Your task to perform on an android device: toggle notifications settings in the gmail app Image 0: 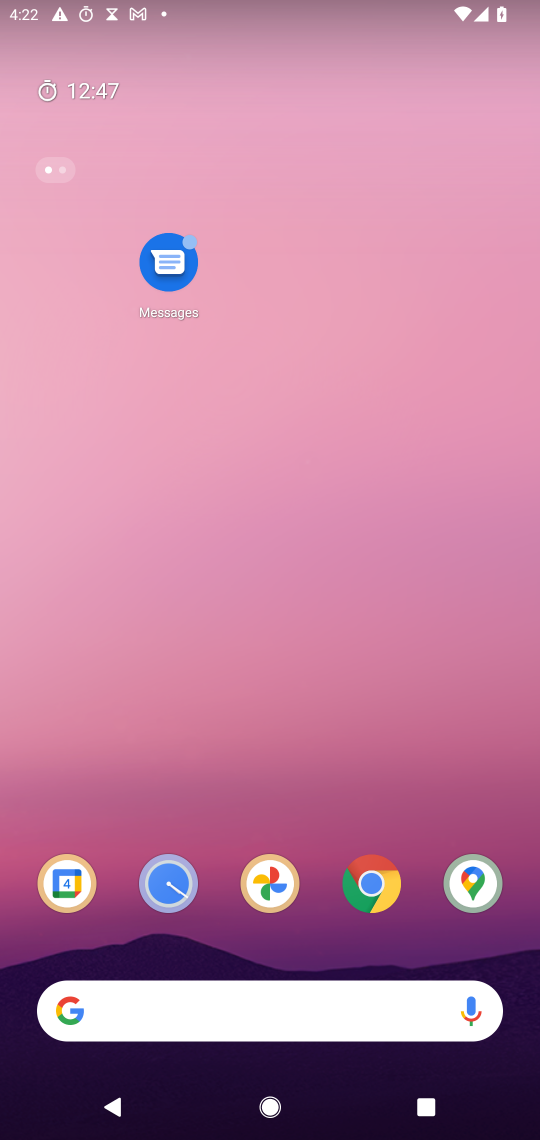
Step 0: drag from (316, 967) to (294, 114)
Your task to perform on an android device: toggle notifications settings in the gmail app Image 1: 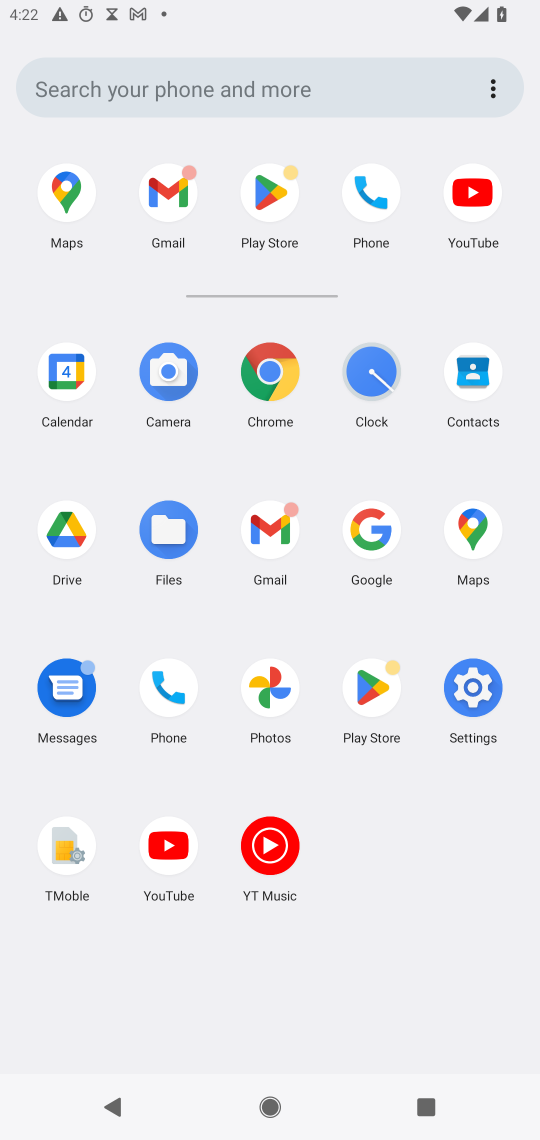
Step 1: click (265, 527)
Your task to perform on an android device: toggle notifications settings in the gmail app Image 2: 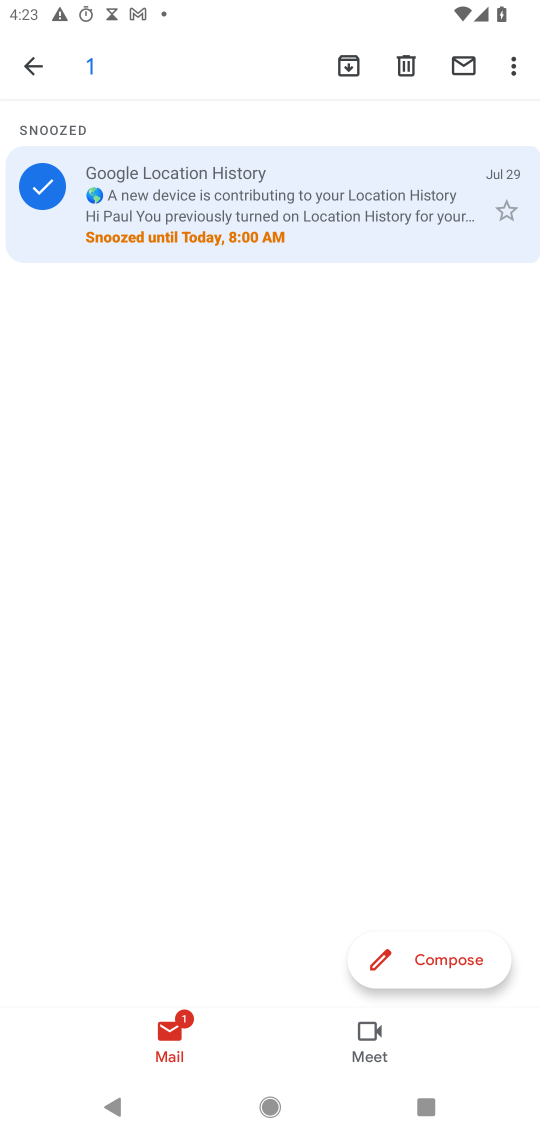
Step 2: click (337, 768)
Your task to perform on an android device: toggle notifications settings in the gmail app Image 3: 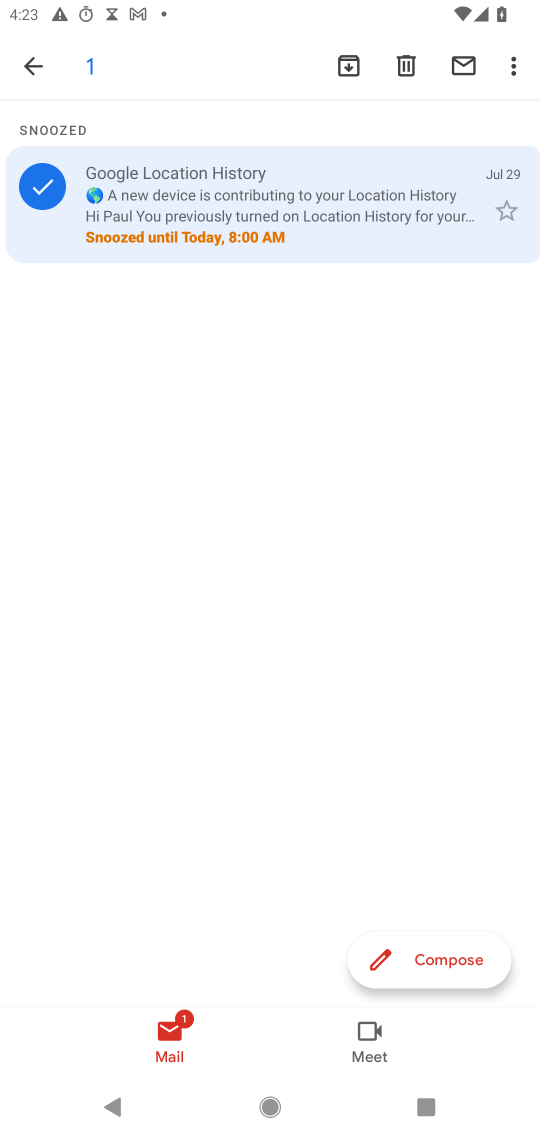
Step 3: click (45, 64)
Your task to perform on an android device: toggle notifications settings in the gmail app Image 4: 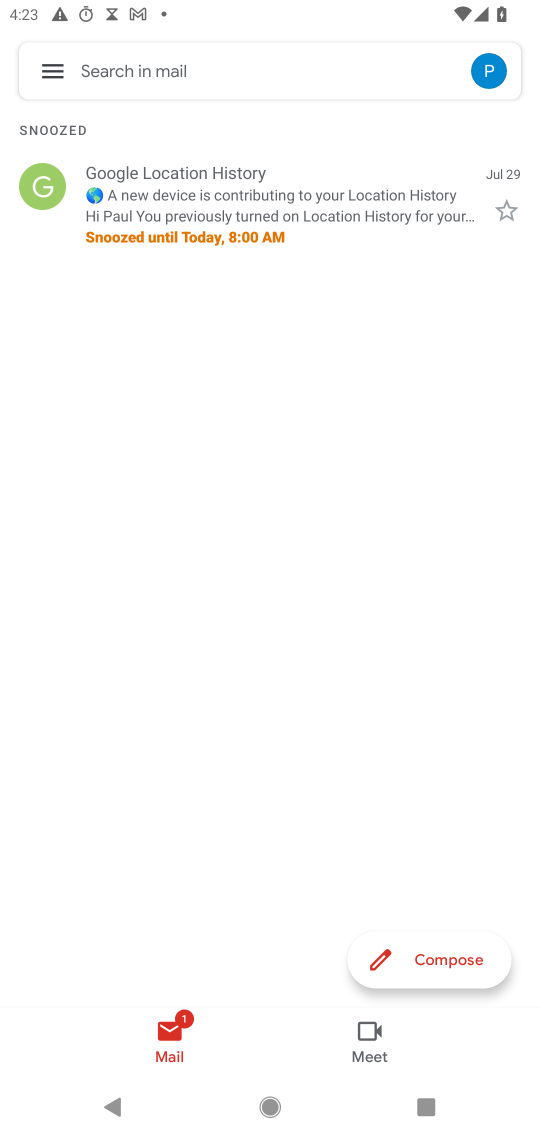
Step 4: click (51, 62)
Your task to perform on an android device: toggle notifications settings in the gmail app Image 5: 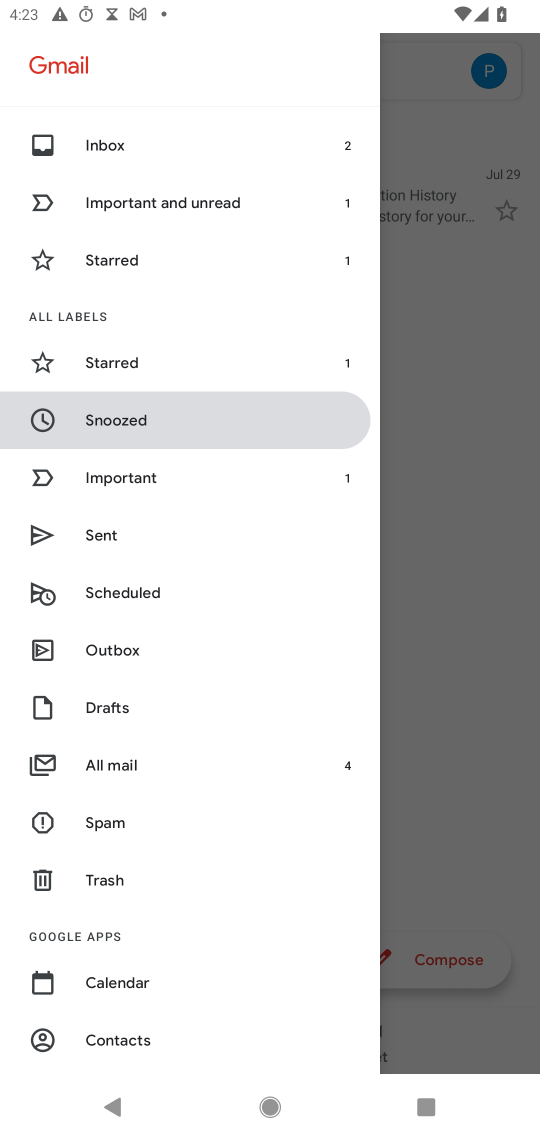
Step 5: drag from (127, 1000) to (108, 640)
Your task to perform on an android device: toggle notifications settings in the gmail app Image 6: 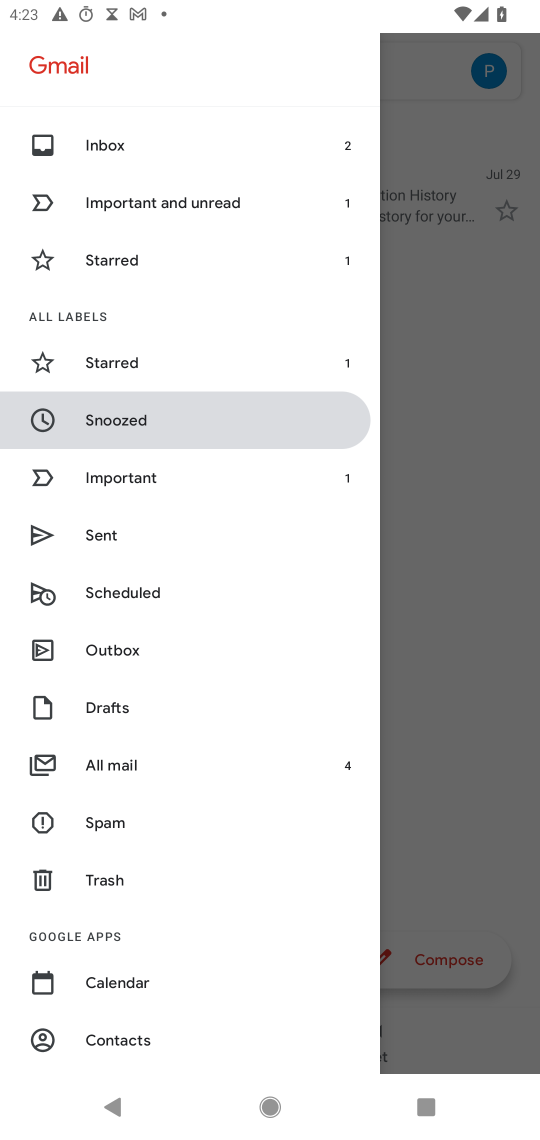
Step 6: drag from (125, 974) to (144, 645)
Your task to perform on an android device: toggle notifications settings in the gmail app Image 7: 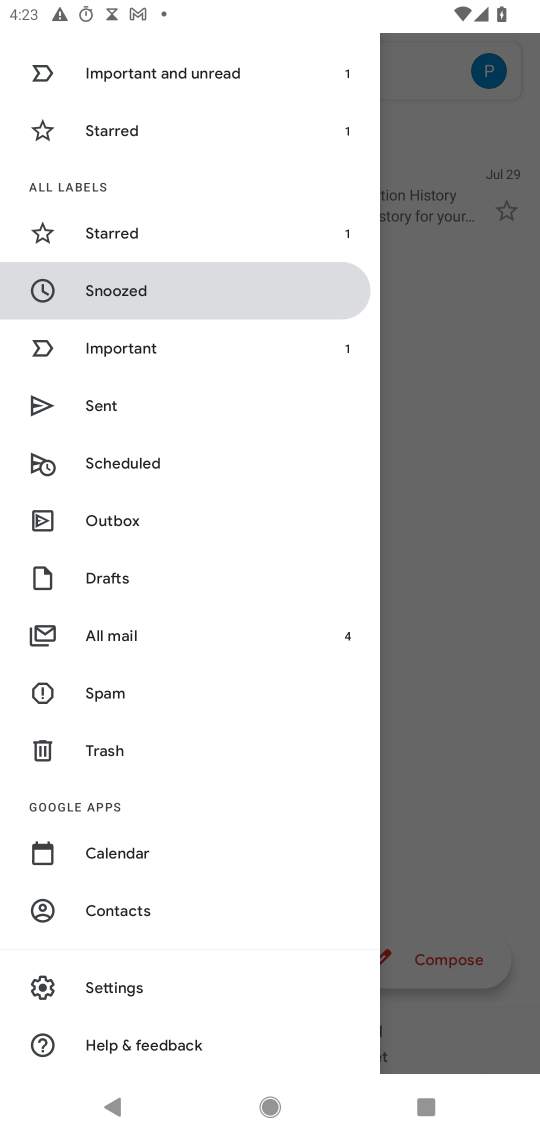
Step 7: click (116, 984)
Your task to perform on an android device: toggle notifications settings in the gmail app Image 8: 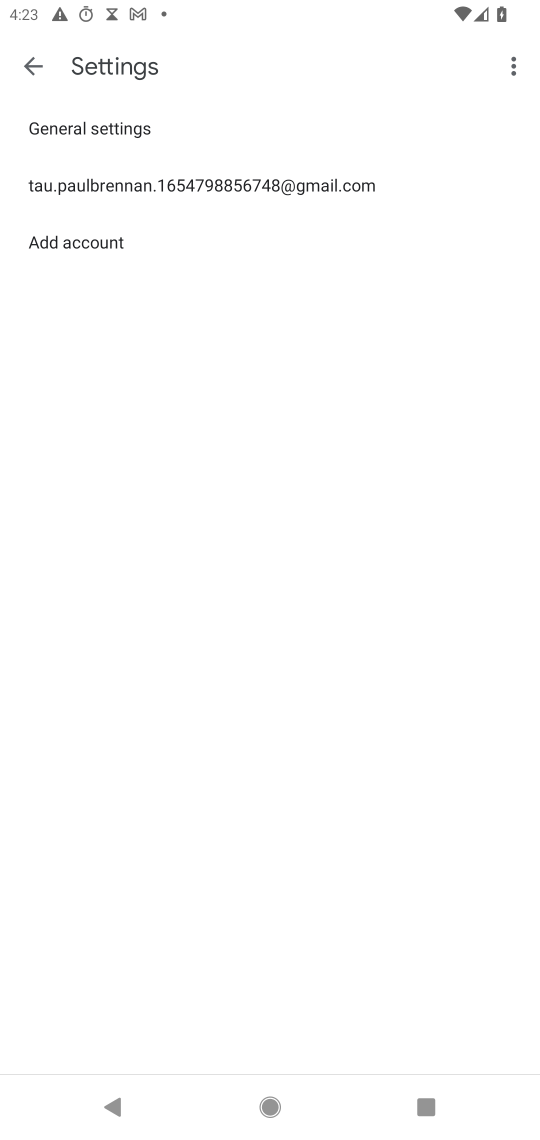
Step 8: click (256, 189)
Your task to perform on an android device: toggle notifications settings in the gmail app Image 9: 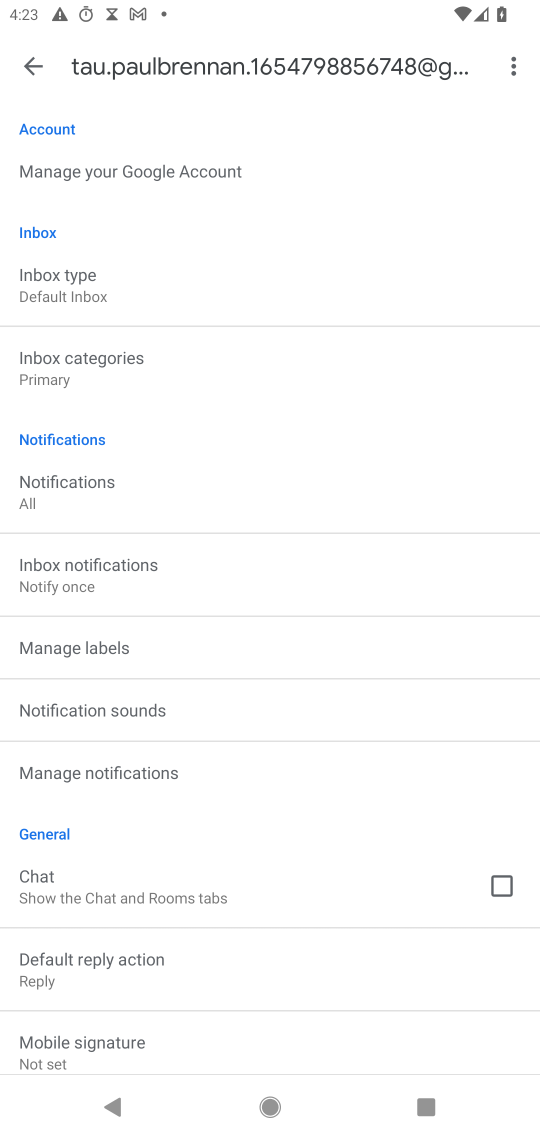
Step 9: click (101, 488)
Your task to perform on an android device: toggle notifications settings in the gmail app Image 10: 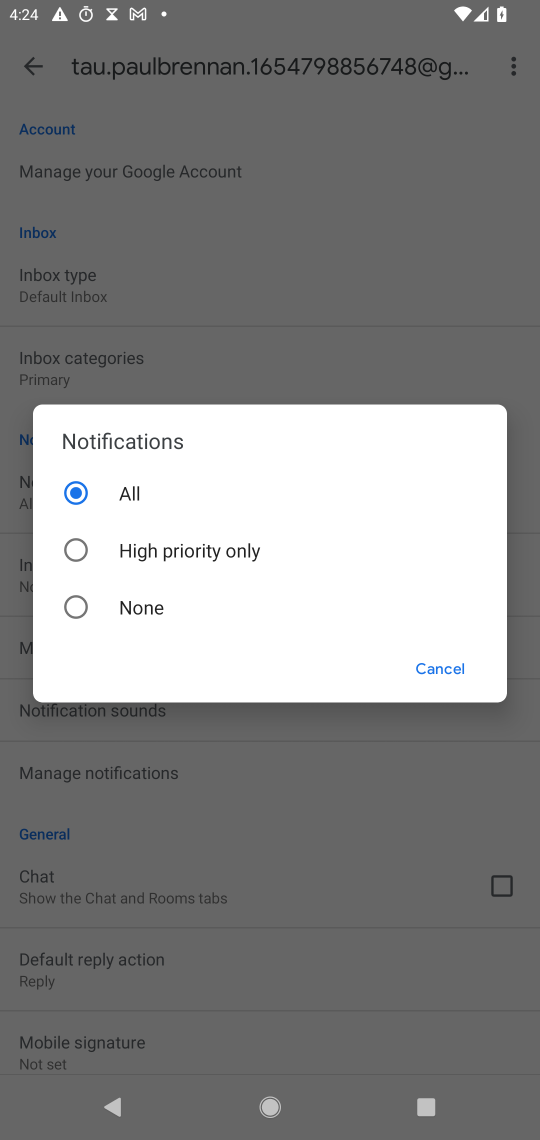
Step 10: click (74, 596)
Your task to perform on an android device: toggle notifications settings in the gmail app Image 11: 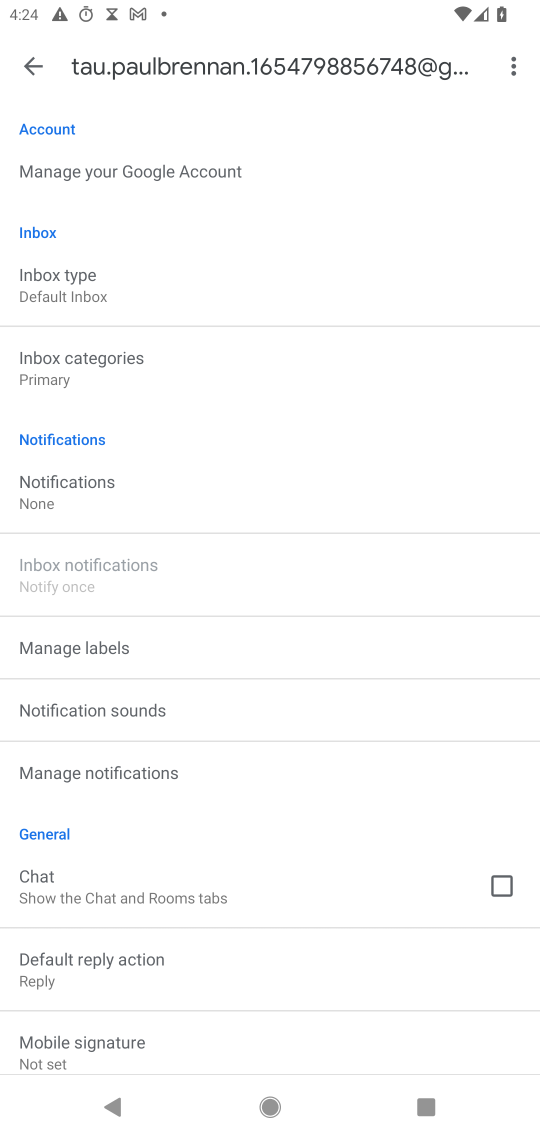
Step 11: task complete